Your task to perform on an android device: Open calendar and show me the first week of next month Image 0: 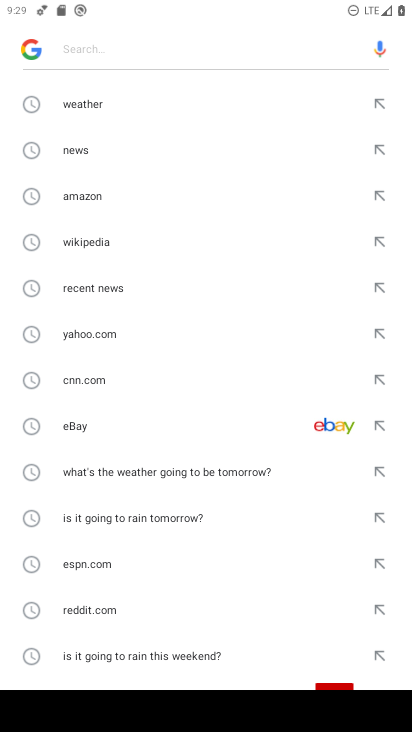
Step 0: press home button
Your task to perform on an android device: Open calendar and show me the first week of next month Image 1: 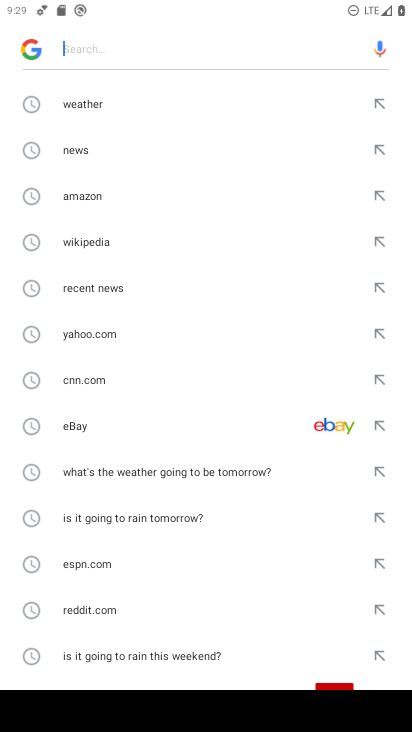
Step 1: press home button
Your task to perform on an android device: Open calendar and show me the first week of next month Image 2: 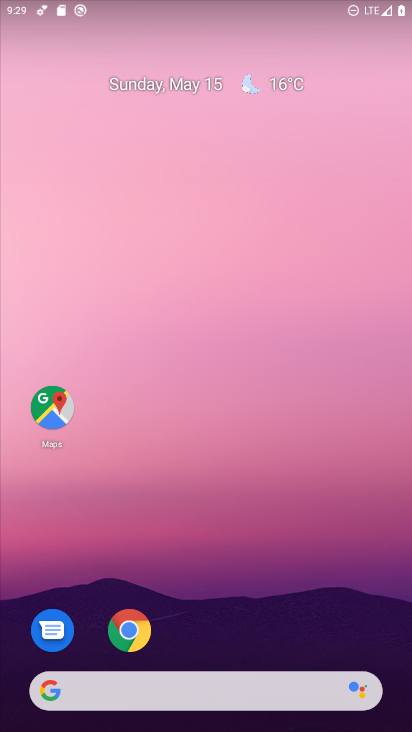
Step 2: drag from (259, 270) to (377, 14)
Your task to perform on an android device: Open calendar and show me the first week of next month Image 3: 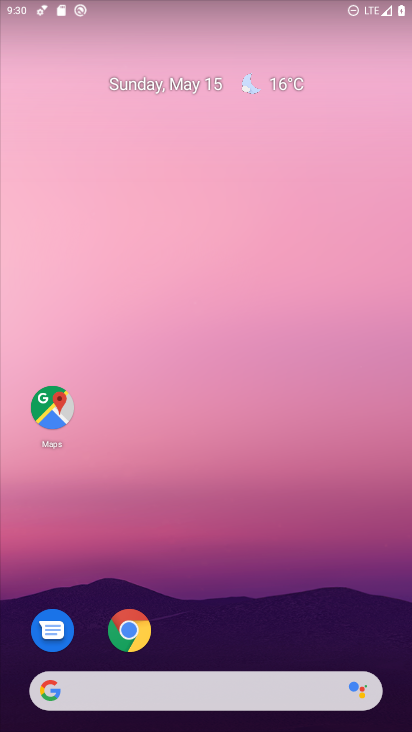
Step 3: drag from (208, 564) to (256, 51)
Your task to perform on an android device: Open calendar and show me the first week of next month Image 4: 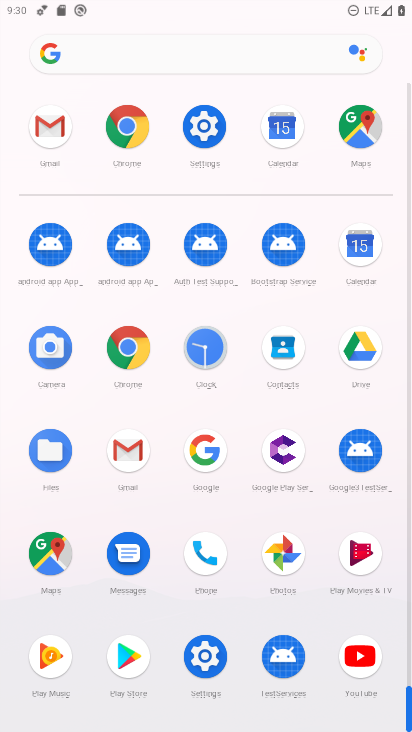
Step 4: click (350, 238)
Your task to perform on an android device: Open calendar and show me the first week of next month Image 5: 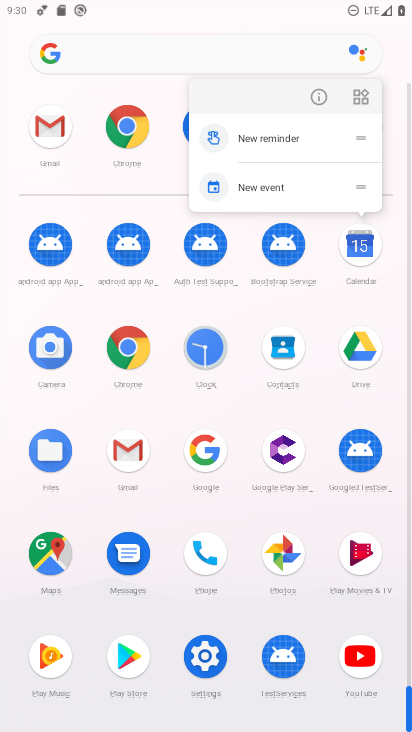
Step 5: click (323, 88)
Your task to perform on an android device: Open calendar and show me the first week of next month Image 6: 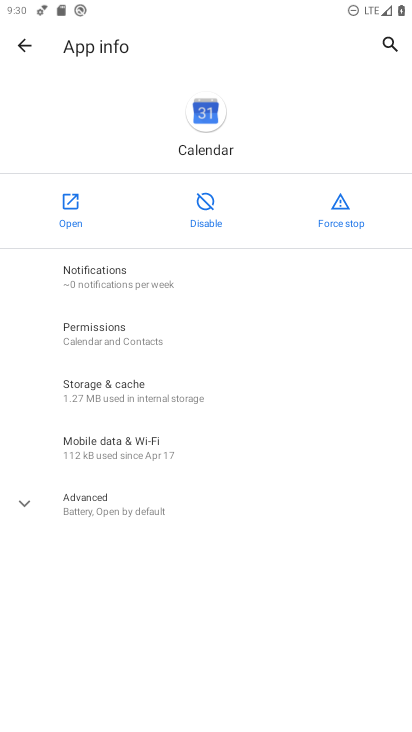
Step 6: click (73, 216)
Your task to perform on an android device: Open calendar and show me the first week of next month Image 7: 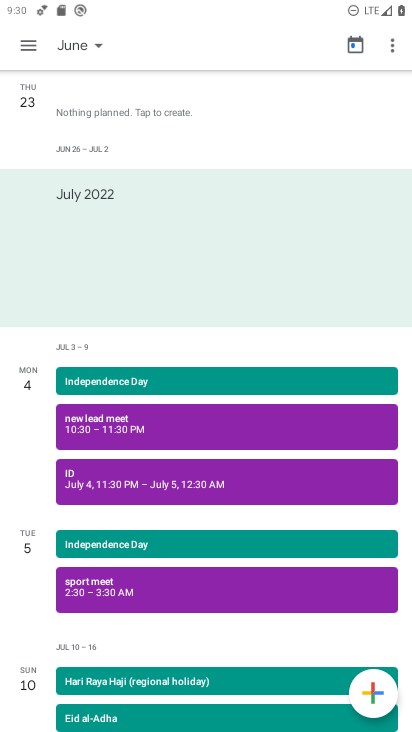
Step 7: click (109, 53)
Your task to perform on an android device: Open calendar and show me the first week of next month Image 8: 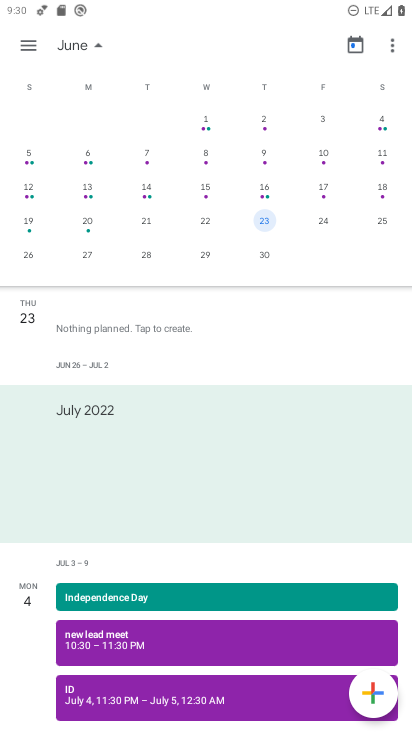
Step 8: drag from (375, 194) to (0, 204)
Your task to perform on an android device: Open calendar and show me the first week of next month Image 9: 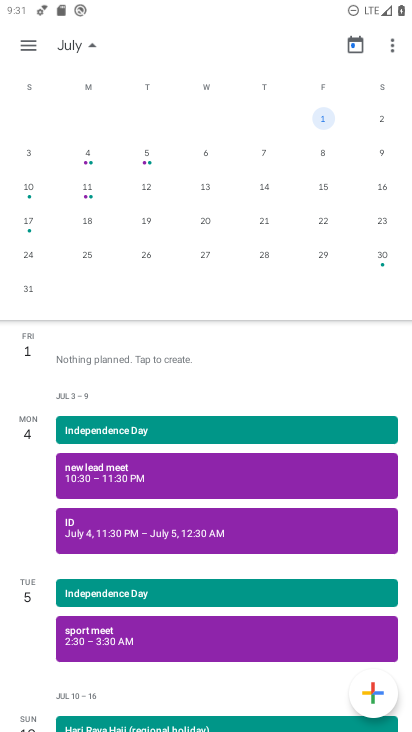
Step 9: click (375, 122)
Your task to perform on an android device: Open calendar and show me the first week of next month Image 10: 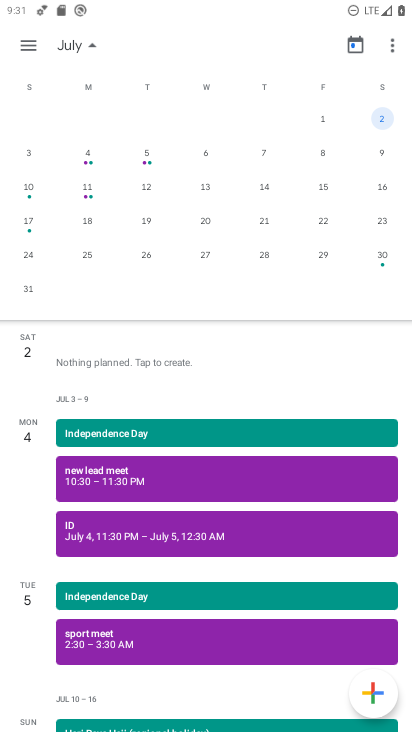
Step 10: task complete